Your task to perform on an android device: Open Google Maps Image 0: 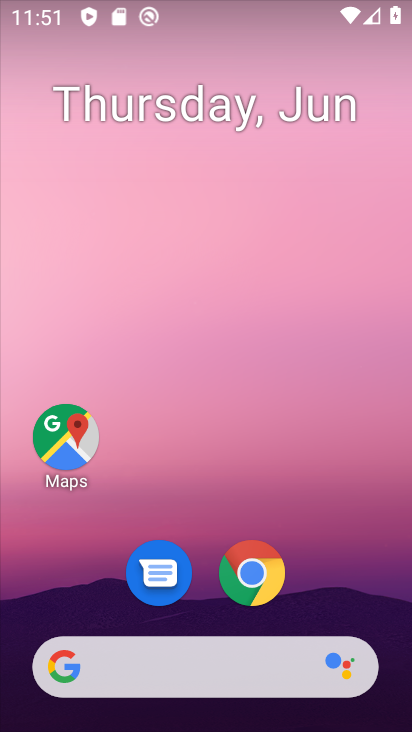
Step 0: task complete